Your task to perform on an android device: change the clock display to digital Image 0: 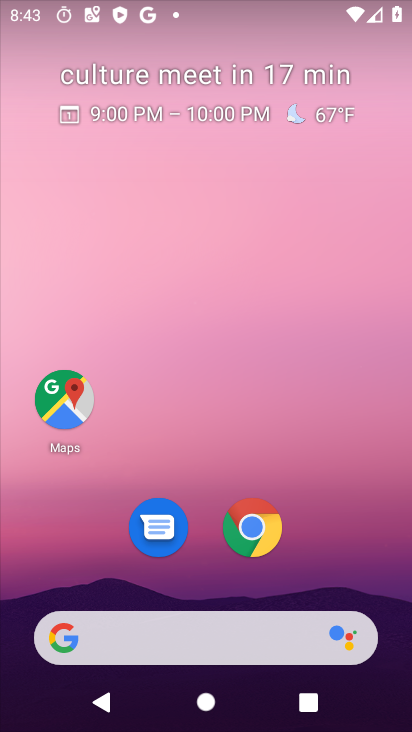
Step 0: drag from (229, 713) to (227, 223)
Your task to perform on an android device: change the clock display to digital Image 1: 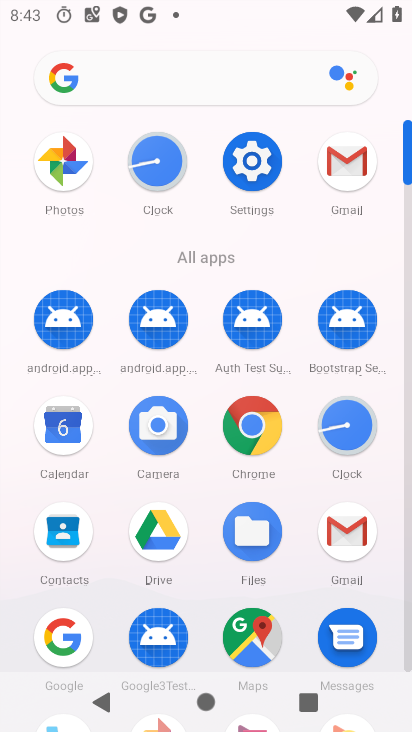
Step 1: click (346, 421)
Your task to perform on an android device: change the clock display to digital Image 2: 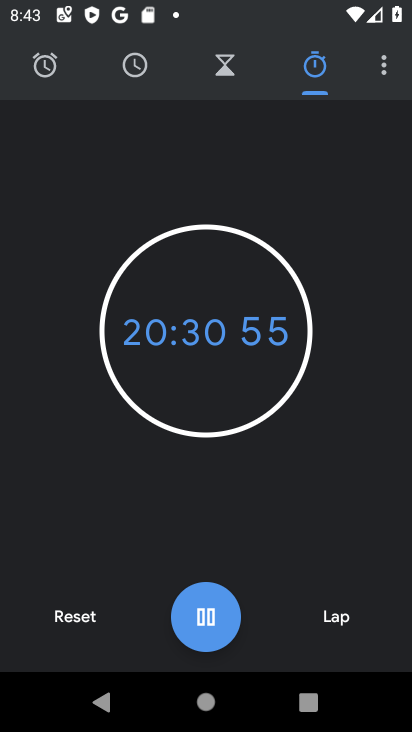
Step 2: click (385, 73)
Your task to perform on an android device: change the clock display to digital Image 3: 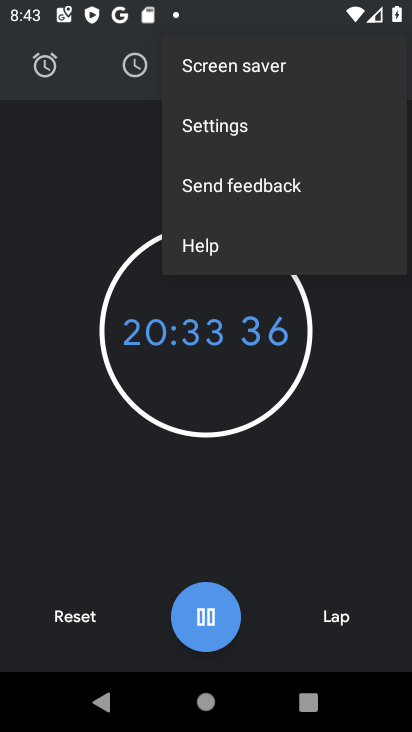
Step 3: click (235, 126)
Your task to perform on an android device: change the clock display to digital Image 4: 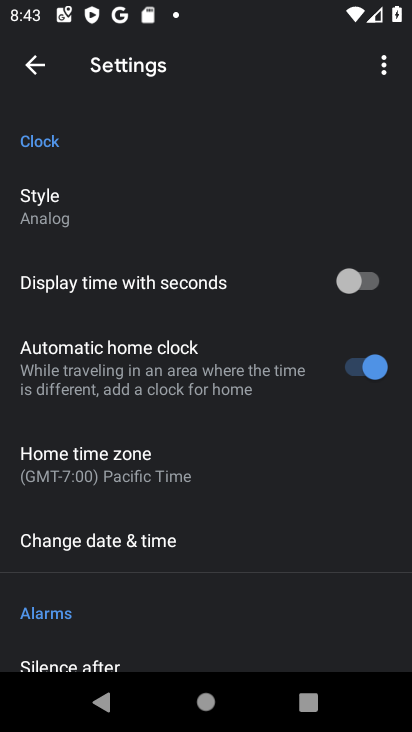
Step 4: click (38, 218)
Your task to perform on an android device: change the clock display to digital Image 5: 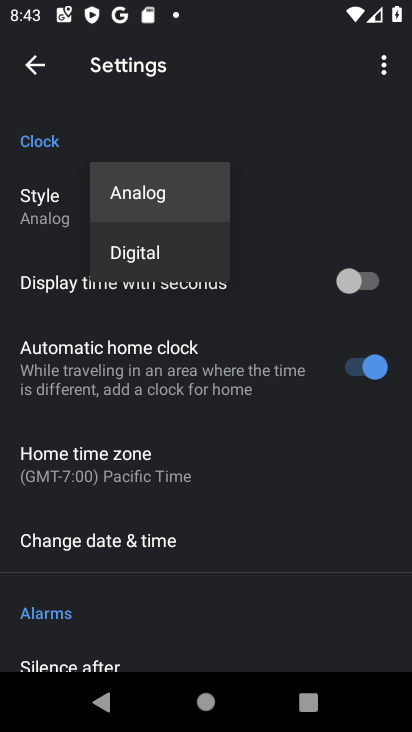
Step 5: click (151, 255)
Your task to perform on an android device: change the clock display to digital Image 6: 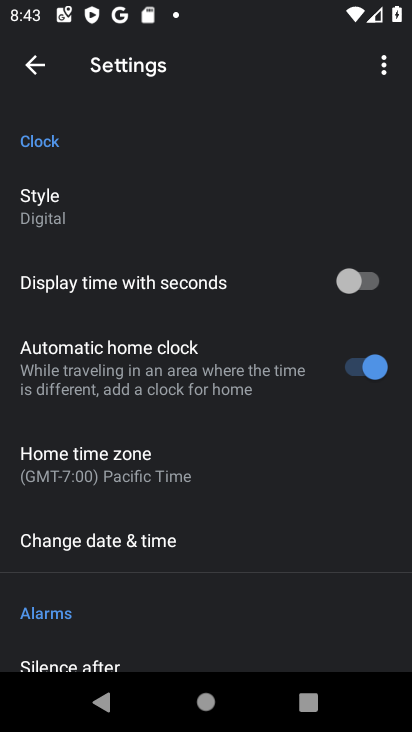
Step 6: task complete